Your task to perform on an android device: Open calendar and show me the first week of next month Image 0: 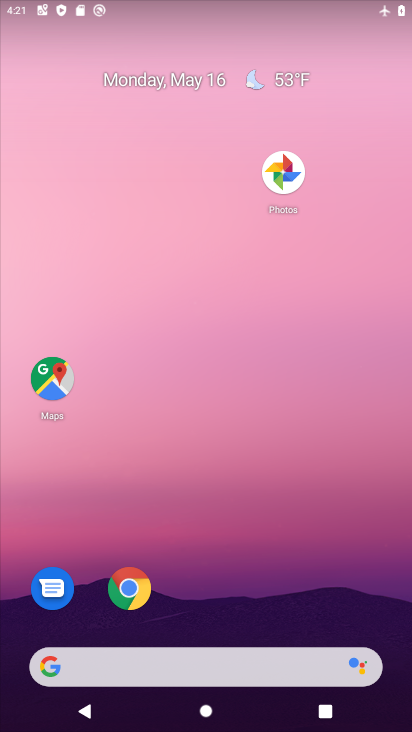
Step 0: click (185, 75)
Your task to perform on an android device: Open calendar and show me the first week of next month Image 1: 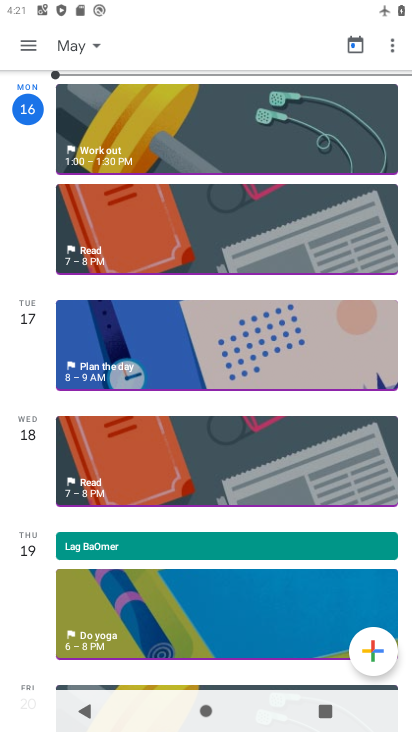
Step 1: press home button
Your task to perform on an android device: Open calendar and show me the first week of next month Image 2: 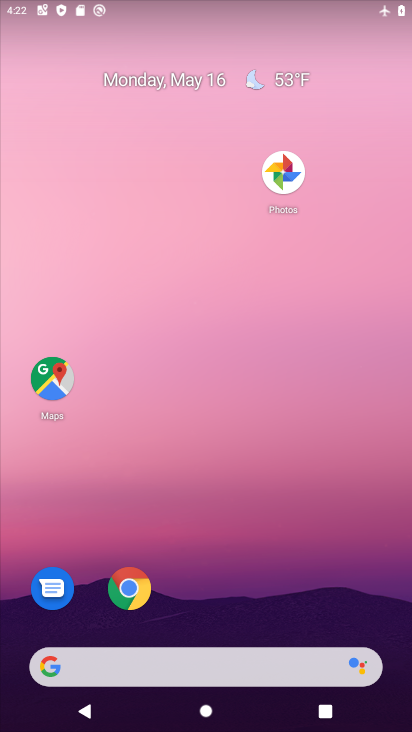
Step 2: click (199, 82)
Your task to perform on an android device: Open calendar and show me the first week of next month Image 3: 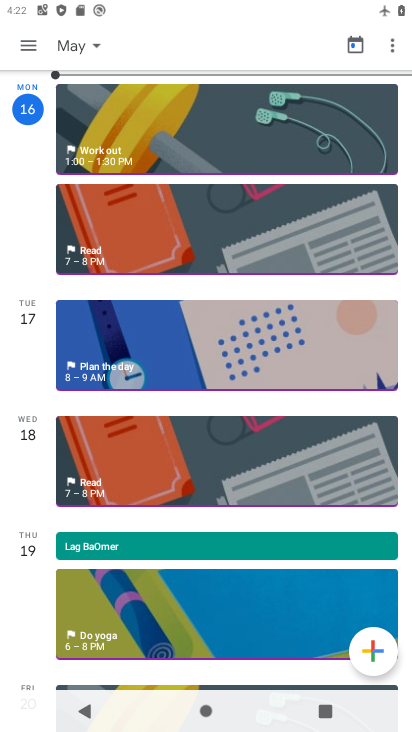
Step 3: click (70, 52)
Your task to perform on an android device: Open calendar and show me the first week of next month Image 4: 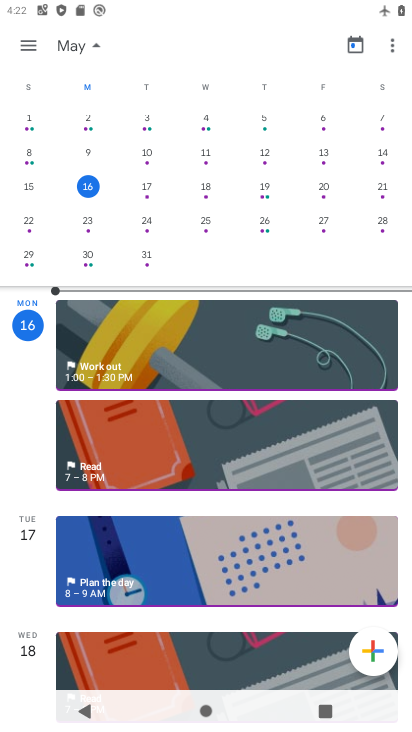
Step 4: task complete